Your task to perform on an android device: search for starred emails in the gmail app Image 0: 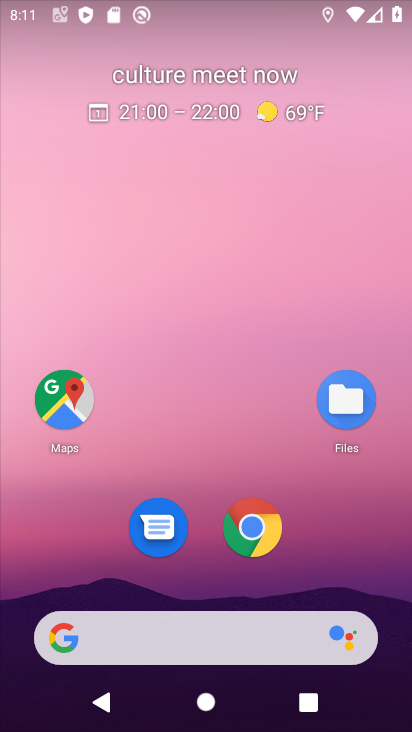
Step 0: drag from (314, 560) to (278, 66)
Your task to perform on an android device: search for starred emails in the gmail app Image 1: 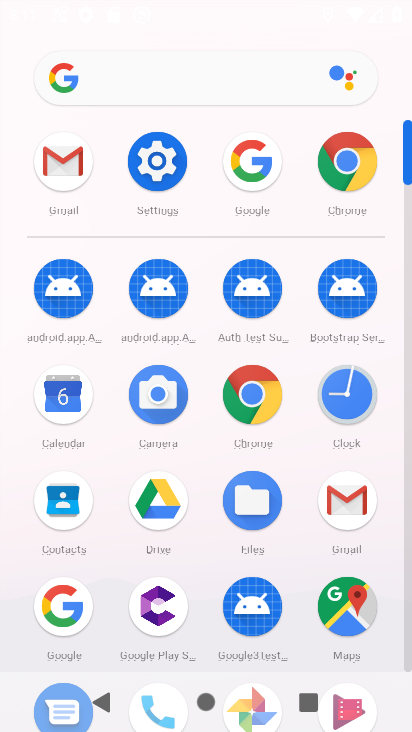
Step 1: click (70, 168)
Your task to perform on an android device: search for starred emails in the gmail app Image 2: 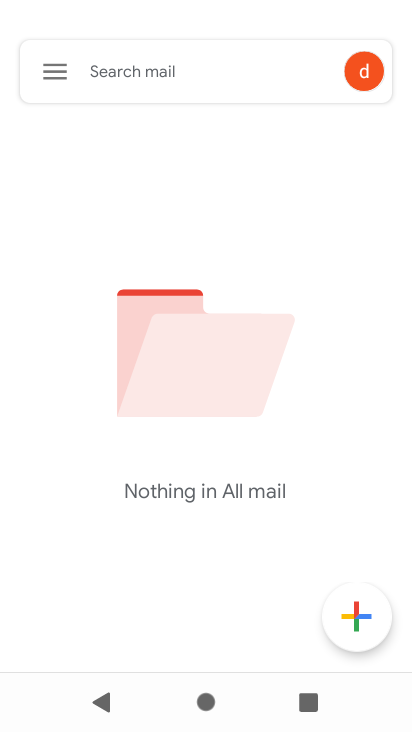
Step 2: click (25, 55)
Your task to perform on an android device: search for starred emails in the gmail app Image 3: 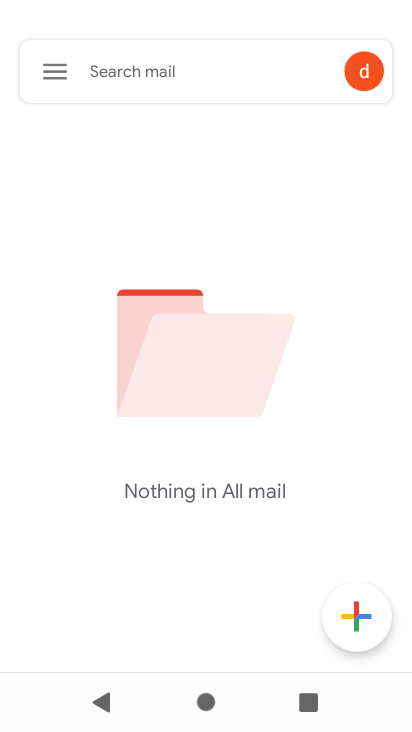
Step 3: click (47, 70)
Your task to perform on an android device: search for starred emails in the gmail app Image 4: 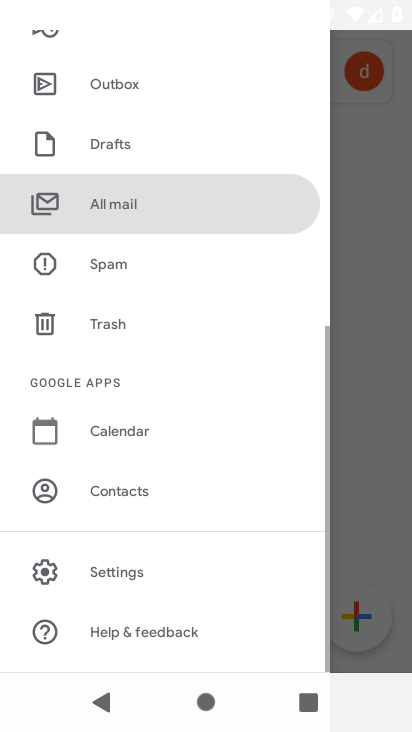
Step 4: drag from (136, 174) to (192, 494)
Your task to perform on an android device: search for starred emails in the gmail app Image 5: 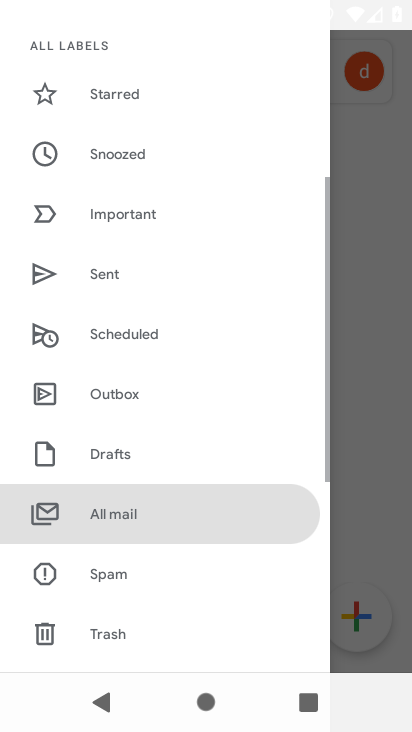
Step 5: drag from (110, 158) to (141, 322)
Your task to perform on an android device: search for starred emails in the gmail app Image 6: 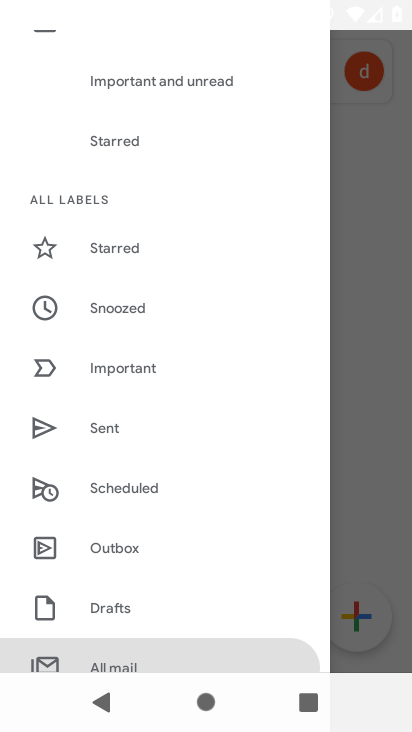
Step 6: click (120, 252)
Your task to perform on an android device: search for starred emails in the gmail app Image 7: 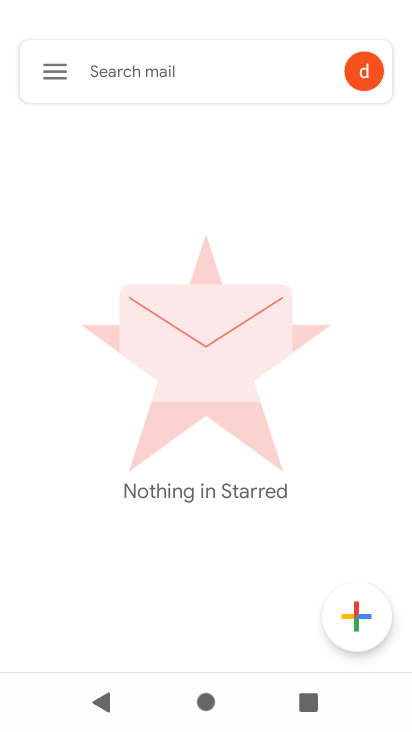
Step 7: task complete